Your task to perform on an android device: delete browsing data in the chrome app Image 0: 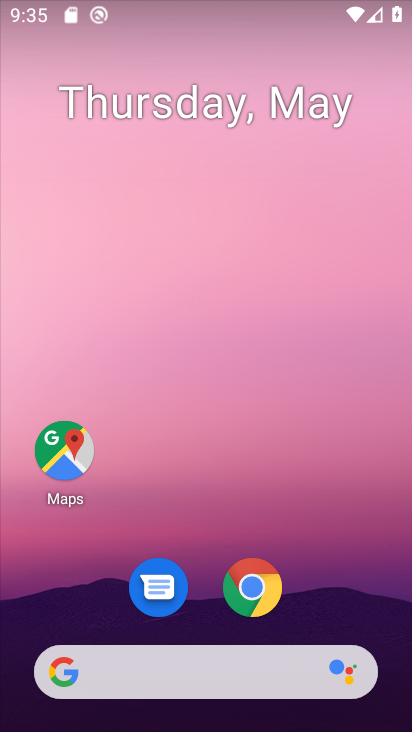
Step 0: drag from (398, 639) to (271, 6)
Your task to perform on an android device: delete browsing data in the chrome app Image 1: 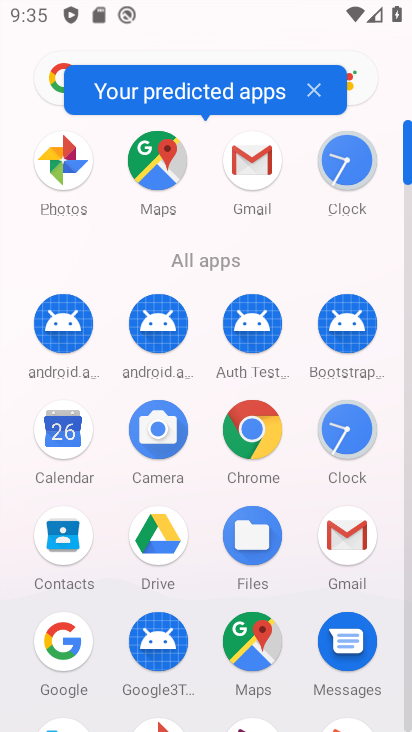
Step 1: click (267, 421)
Your task to perform on an android device: delete browsing data in the chrome app Image 2: 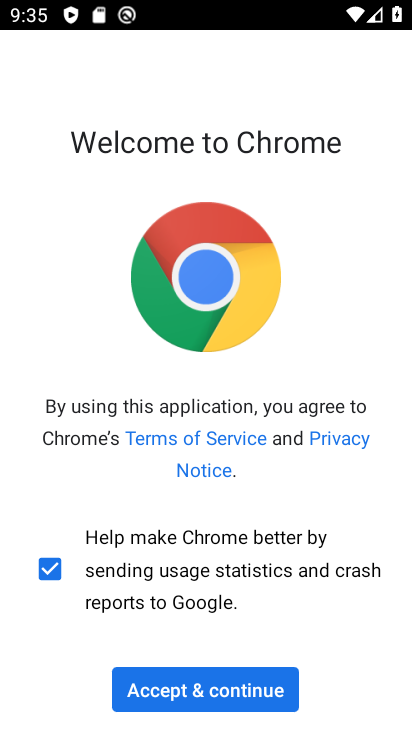
Step 2: click (182, 694)
Your task to perform on an android device: delete browsing data in the chrome app Image 3: 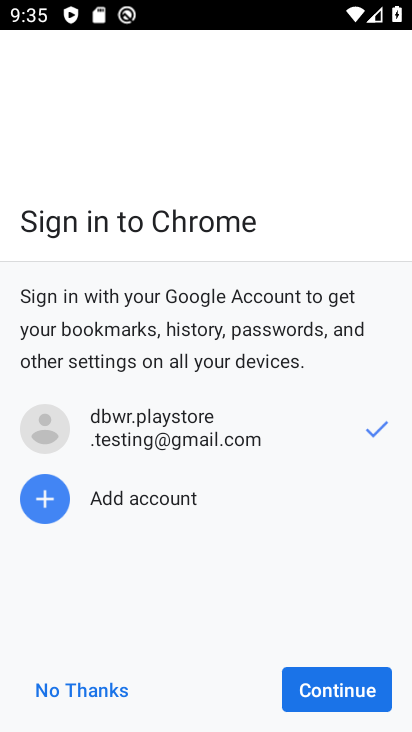
Step 3: click (307, 684)
Your task to perform on an android device: delete browsing data in the chrome app Image 4: 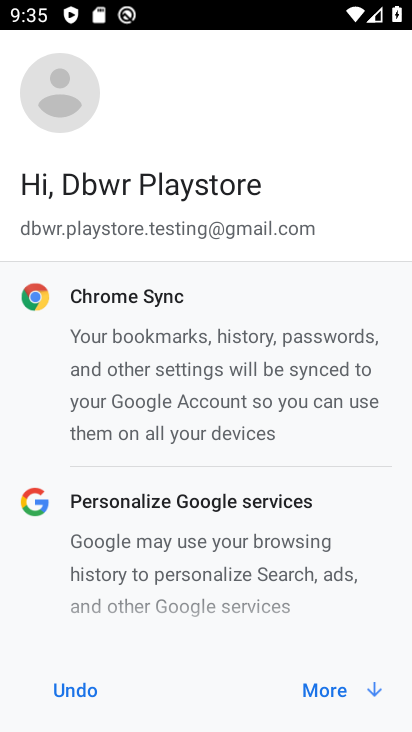
Step 4: click (307, 684)
Your task to perform on an android device: delete browsing data in the chrome app Image 5: 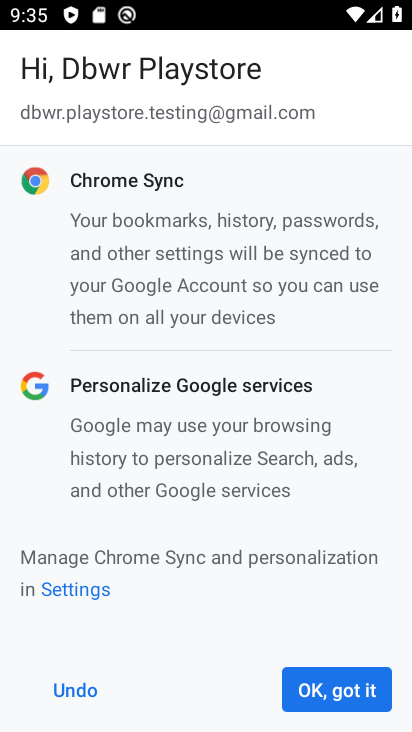
Step 5: click (307, 684)
Your task to perform on an android device: delete browsing data in the chrome app Image 6: 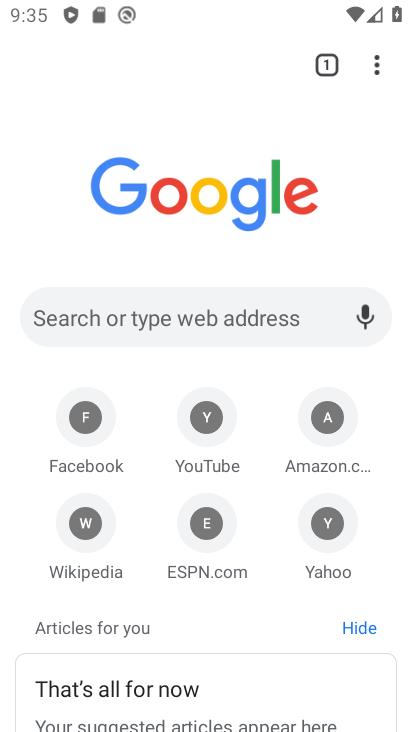
Step 6: click (377, 54)
Your task to perform on an android device: delete browsing data in the chrome app Image 7: 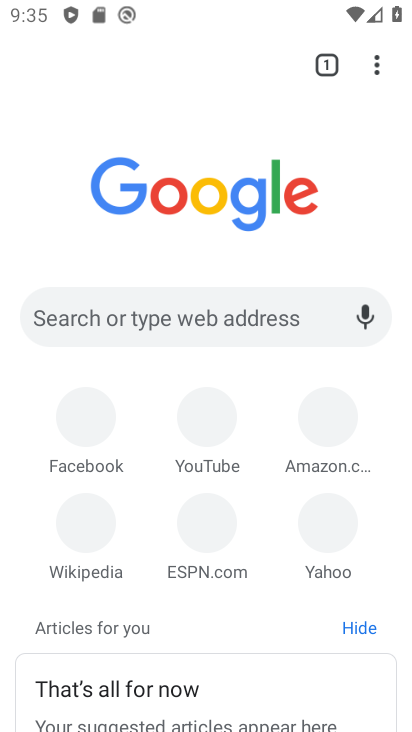
Step 7: click (374, 63)
Your task to perform on an android device: delete browsing data in the chrome app Image 8: 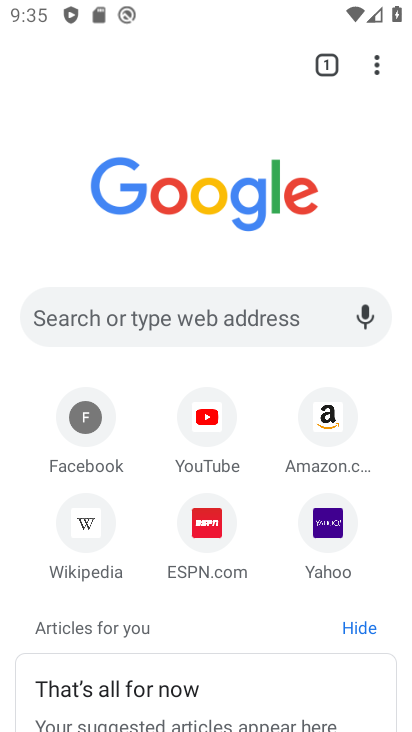
Step 8: click (379, 56)
Your task to perform on an android device: delete browsing data in the chrome app Image 9: 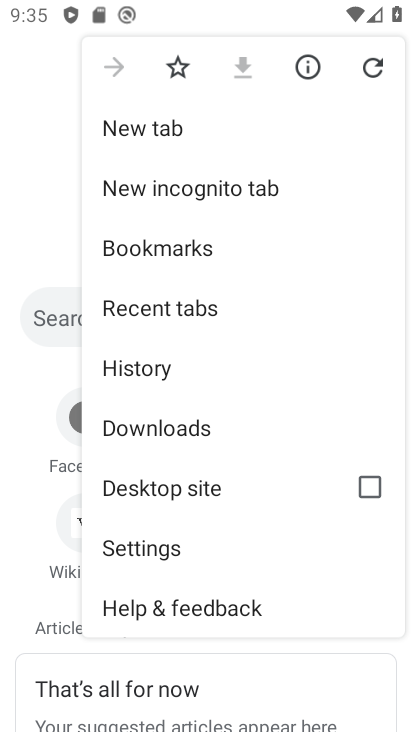
Step 9: click (174, 369)
Your task to perform on an android device: delete browsing data in the chrome app Image 10: 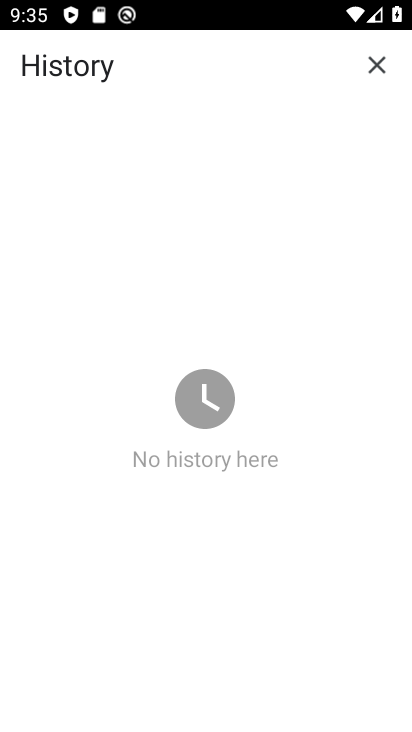
Step 10: task complete